Your task to perform on an android device: turn on location history Image 0: 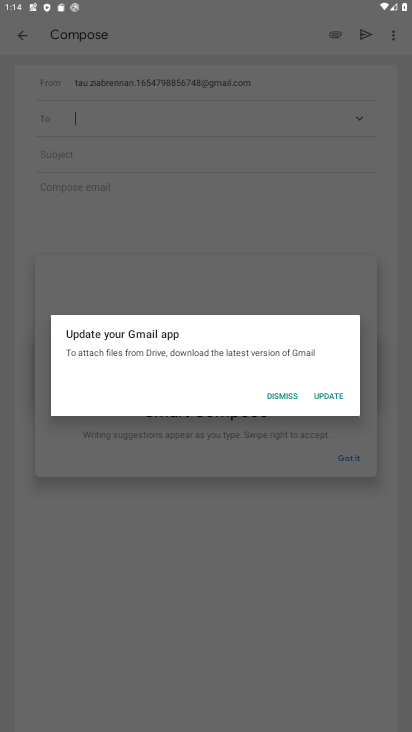
Step 0: press home button
Your task to perform on an android device: turn on location history Image 1: 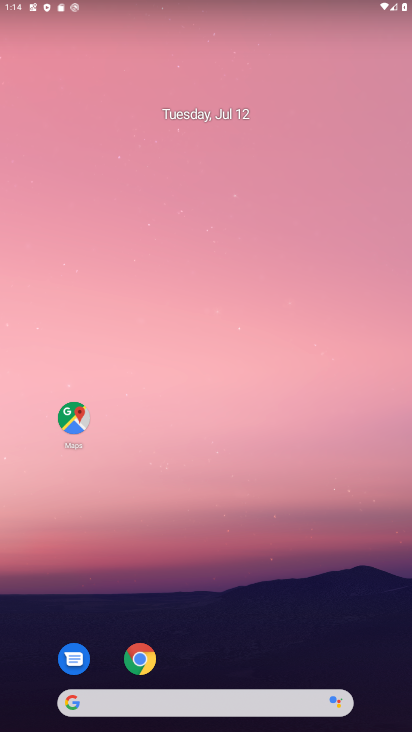
Step 1: drag from (209, 693) to (325, 96)
Your task to perform on an android device: turn on location history Image 2: 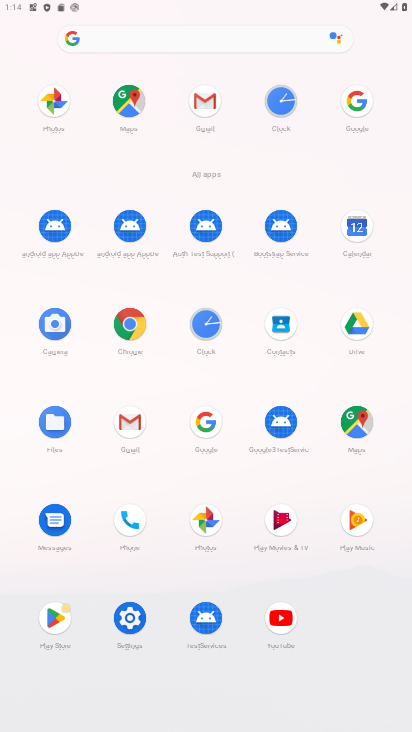
Step 2: click (132, 624)
Your task to perform on an android device: turn on location history Image 3: 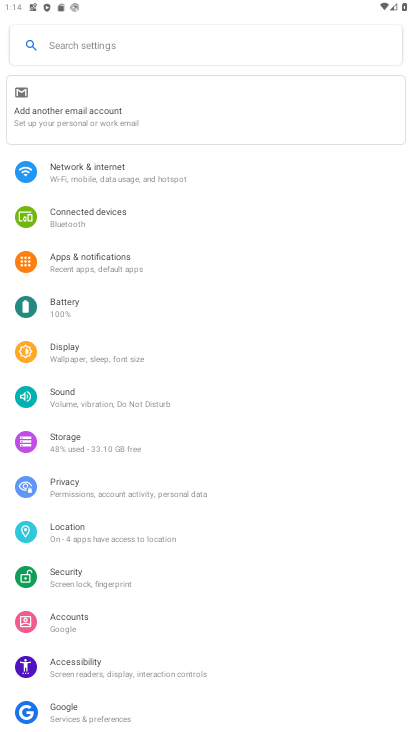
Step 3: click (69, 529)
Your task to perform on an android device: turn on location history Image 4: 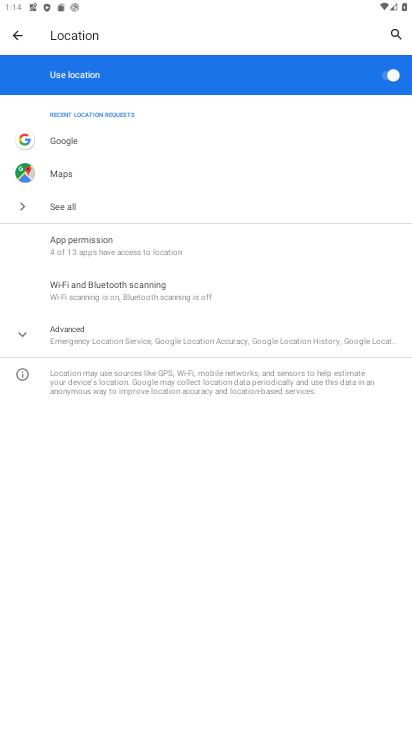
Step 4: click (117, 344)
Your task to perform on an android device: turn on location history Image 5: 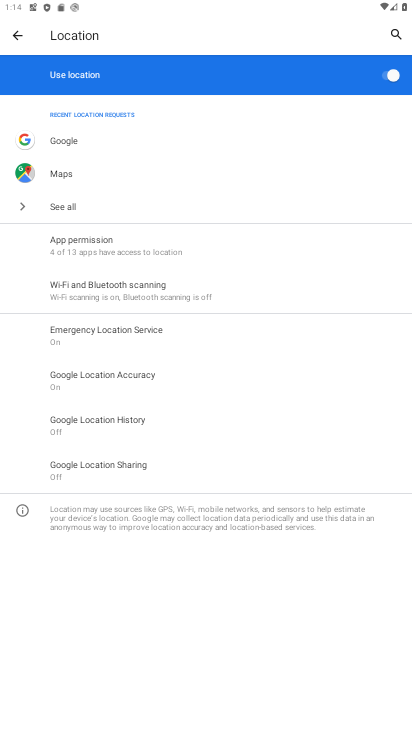
Step 5: click (161, 432)
Your task to perform on an android device: turn on location history Image 6: 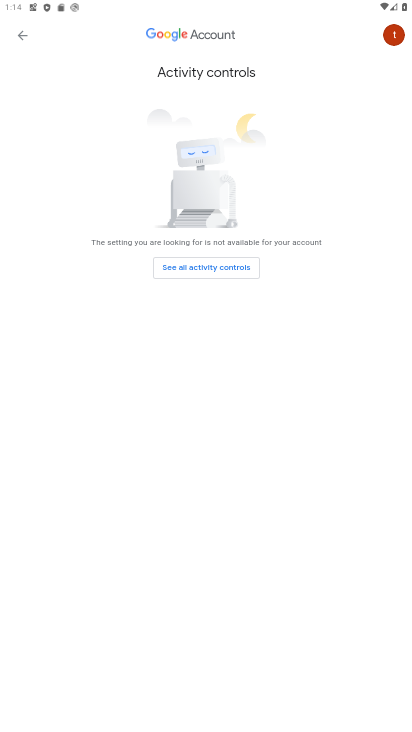
Step 6: task complete